Your task to perform on an android device: turn on the 12-hour format for clock Image 0: 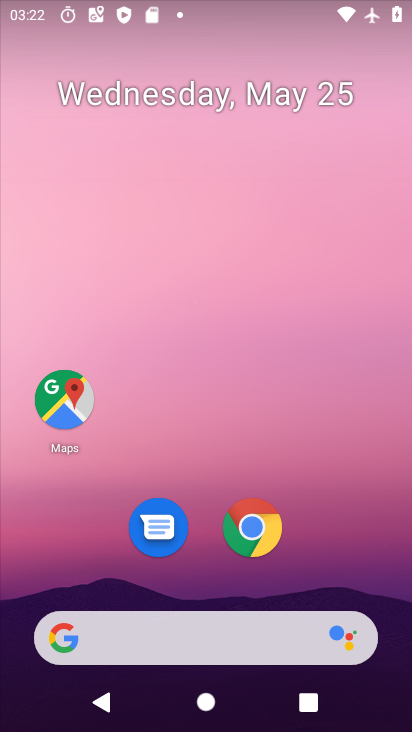
Step 0: drag from (208, 541) to (270, 200)
Your task to perform on an android device: turn on the 12-hour format for clock Image 1: 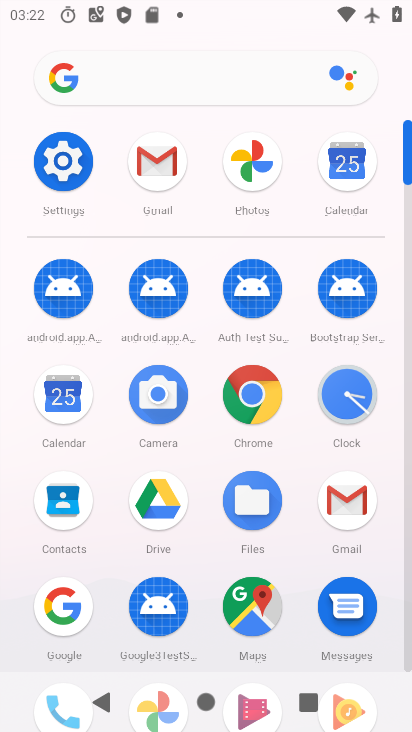
Step 1: click (340, 397)
Your task to perform on an android device: turn on the 12-hour format for clock Image 2: 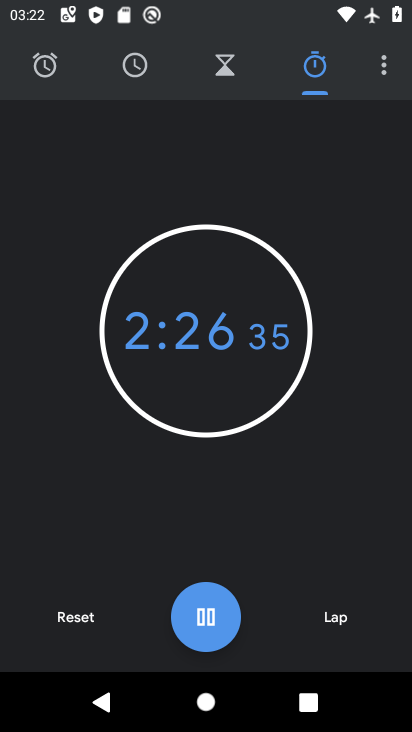
Step 2: click (400, 57)
Your task to perform on an android device: turn on the 12-hour format for clock Image 3: 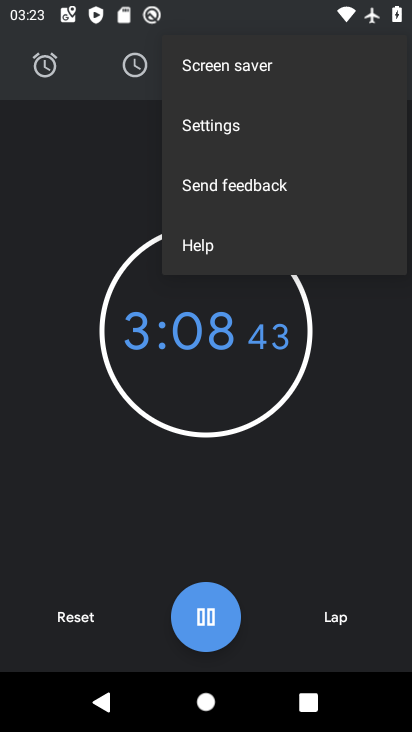
Step 3: click (223, 127)
Your task to perform on an android device: turn on the 12-hour format for clock Image 4: 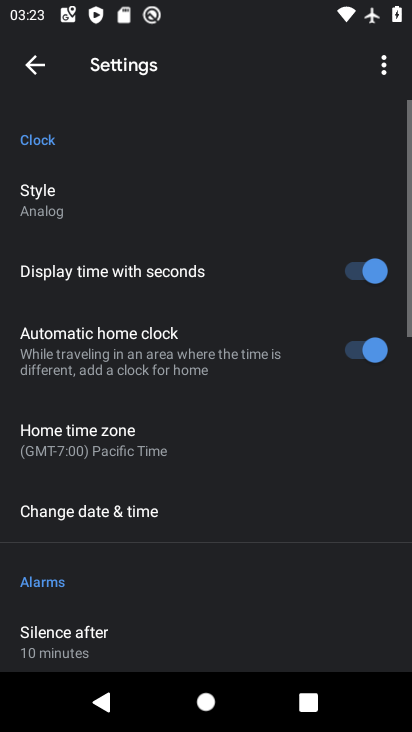
Step 4: click (103, 495)
Your task to perform on an android device: turn on the 12-hour format for clock Image 5: 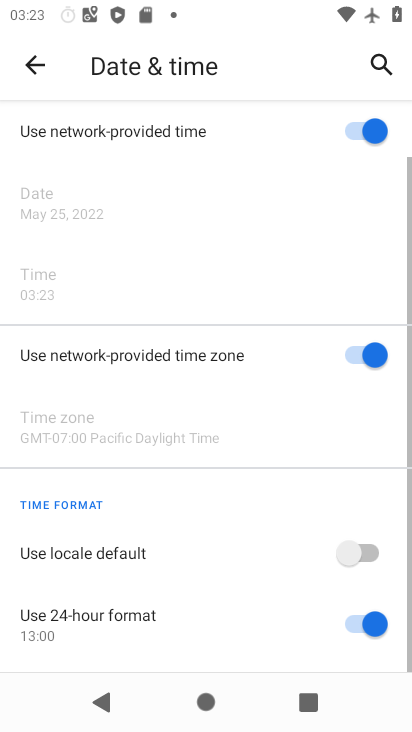
Step 5: drag from (87, 551) to (164, 98)
Your task to perform on an android device: turn on the 12-hour format for clock Image 6: 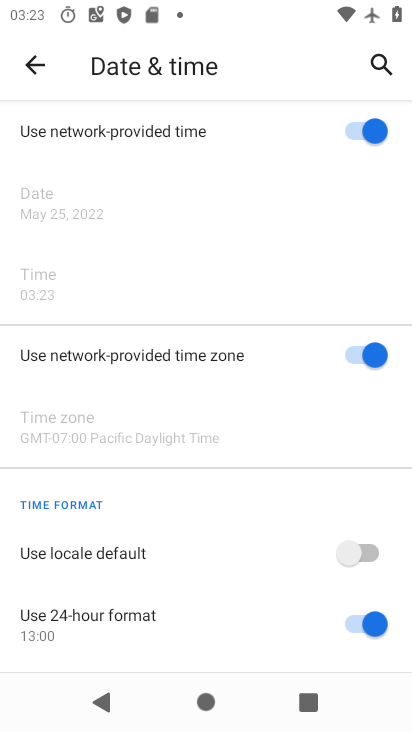
Step 6: drag from (153, 597) to (231, 211)
Your task to perform on an android device: turn on the 12-hour format for clock Image 7: 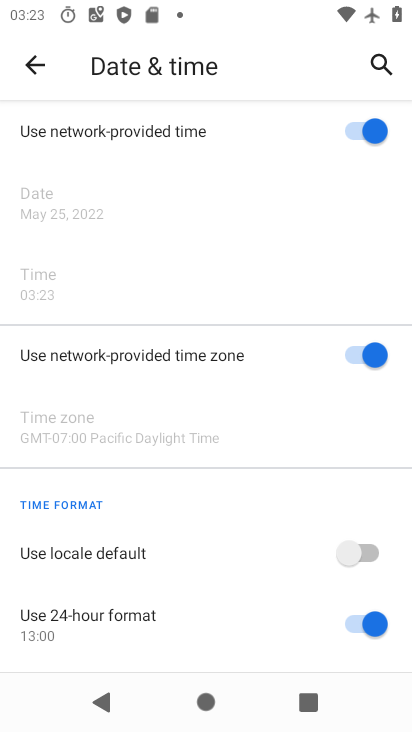
Step 7: click (354, 627)
Your task to perform on an android device: turn on the 12-hour format for clock Image 8: 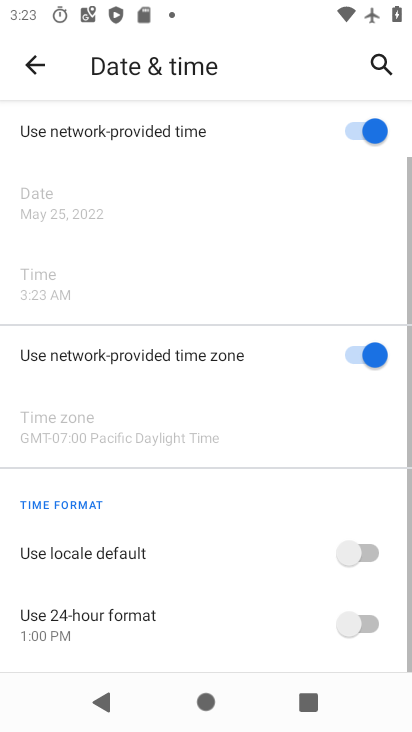
Step 8: task complete